Your task to perform on an android device: Open the calendar app, open the side menu, and click the "Day" option Image 0: 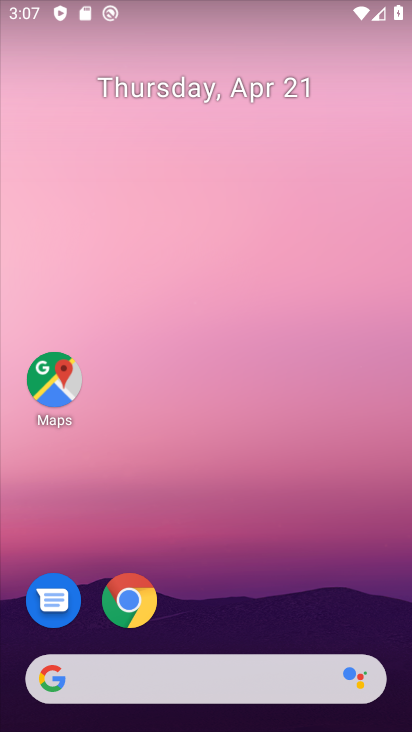
Step 0: drag from (281, 593) to (267, 129)
Your task to perform on an android device: Open the calendar app, open the side menu, and click the "Day" option Image 1: 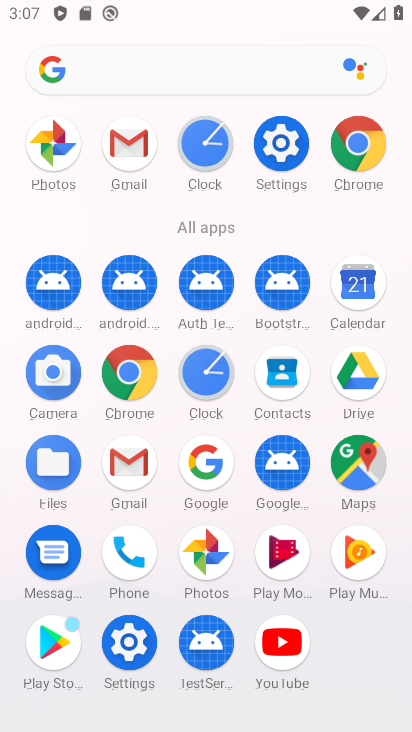
Step 1: click (356, 290)
Your task to perform on an android device: Open the calendar app, open the side menu, and click the "Day" option Image 2: 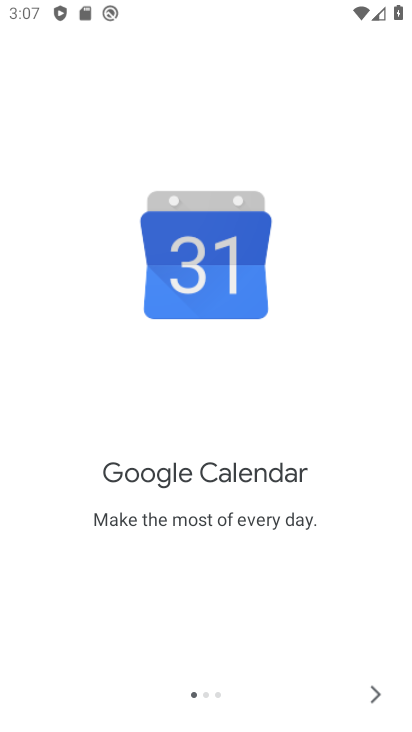
Step 2: click (383, 692)
Your task to perform on an android device: Open the calendar app, open the side menu, and click the "Day" option Image 3: 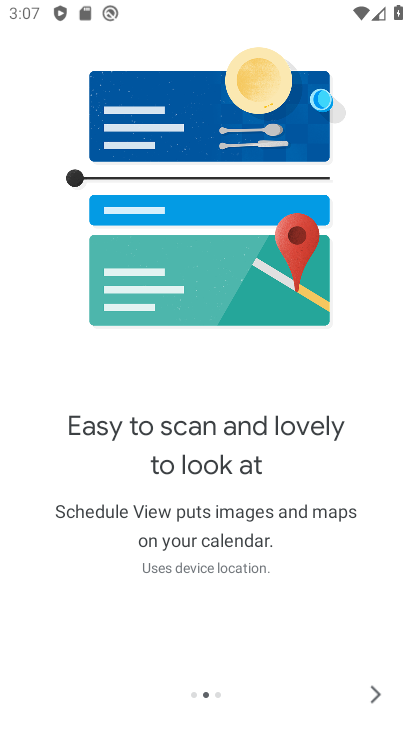
Step 3: click (383, 692)
Your task to perform on an android device: Open the calendar app, open the side menu, and click the "Day" option Image 4: 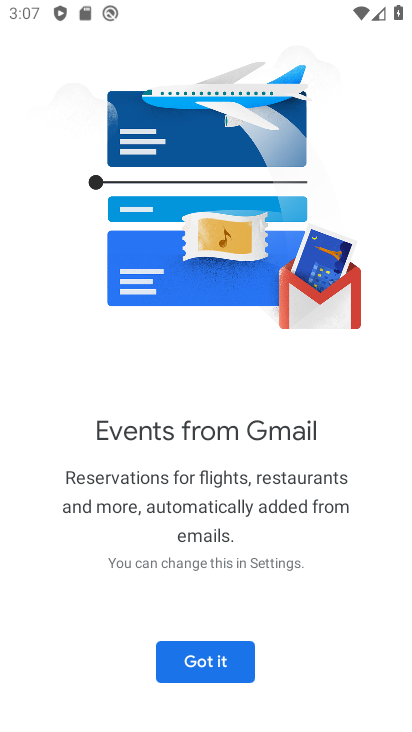
Step 4: click (208, 659)
Your task to perform on an android device: Open the calendar app, open the side menu, and click the "Day" option Image 5: 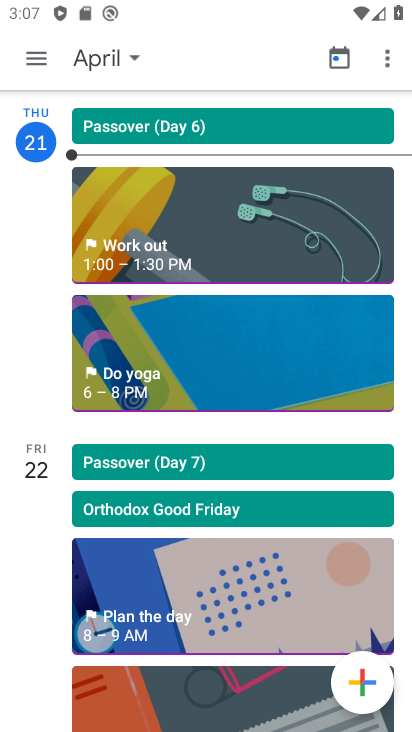
Step 5: click (49, 54)
Your task to perform on an android device: Open the calendar app, open the side menu, and click the "Day" option Image 6: 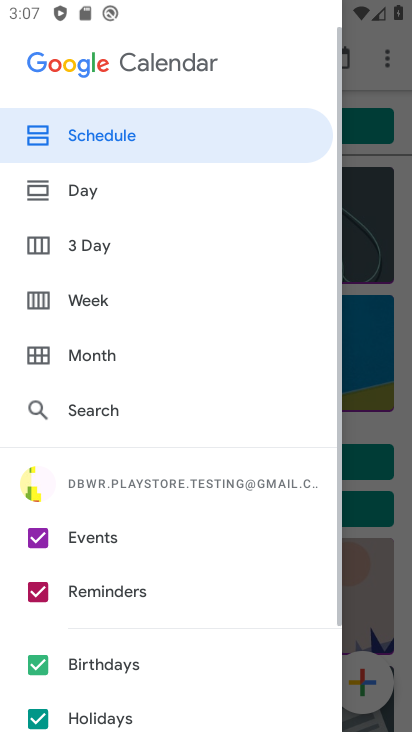
Step 6: click (127, 186)
Your task to perform on an android device: Open the calendar app, open the side menu, and click the "Day" option Image 7: 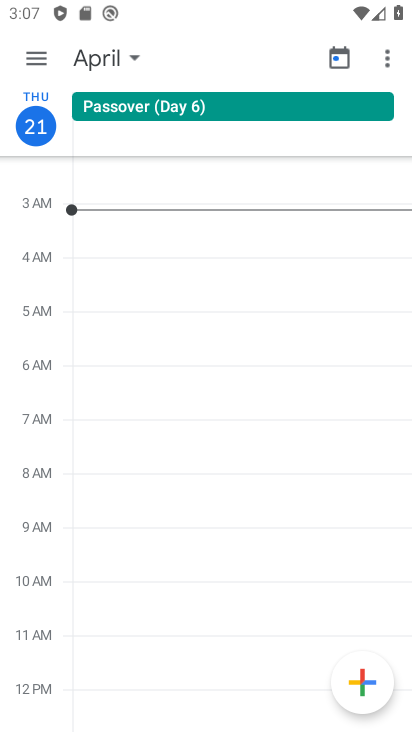
Step 7: task complete